Your task to perform on an android device: Open Google Maps Image 0: 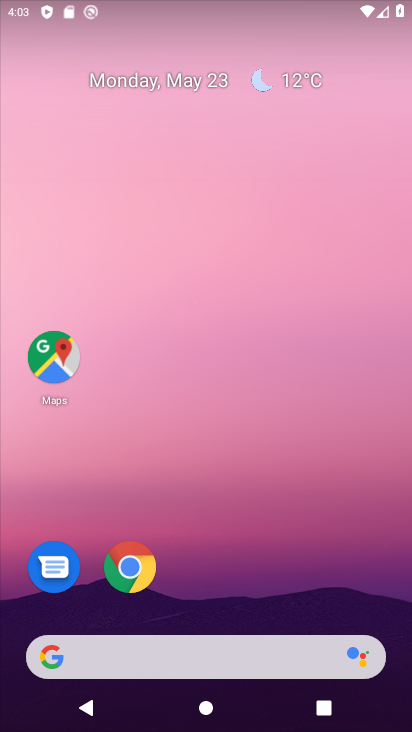
Step 0: click (37, 364)
Your task to perform on an android device: Open Google Maps Image 1: 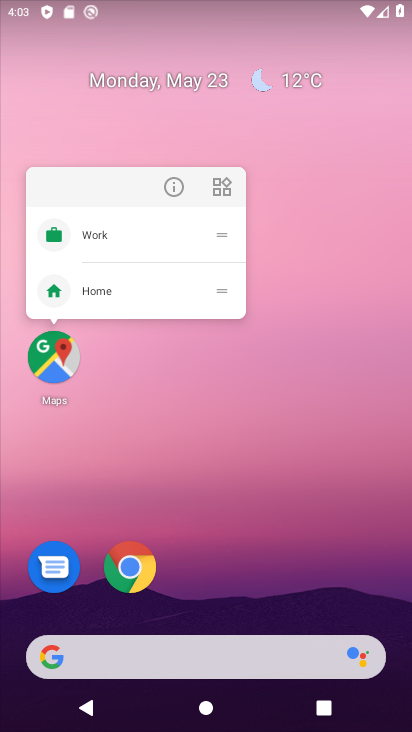
Step 1: click (172, 195)
Your task to perform on an android device: Open Google Maps Image 2: 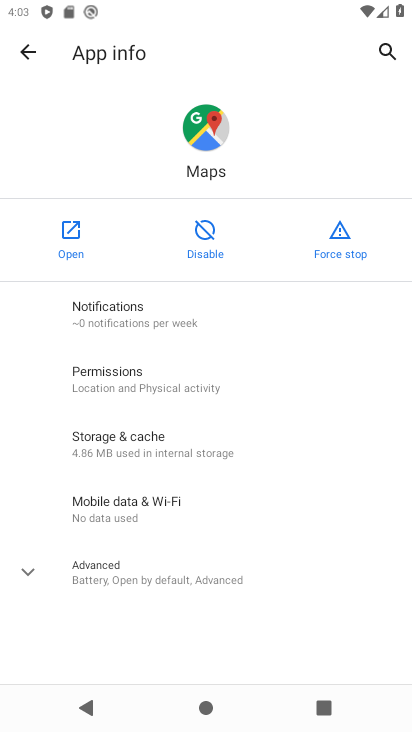
Step 2: click (71, 236)
Your task to perform on an android device: Open Google Maps Image 3: 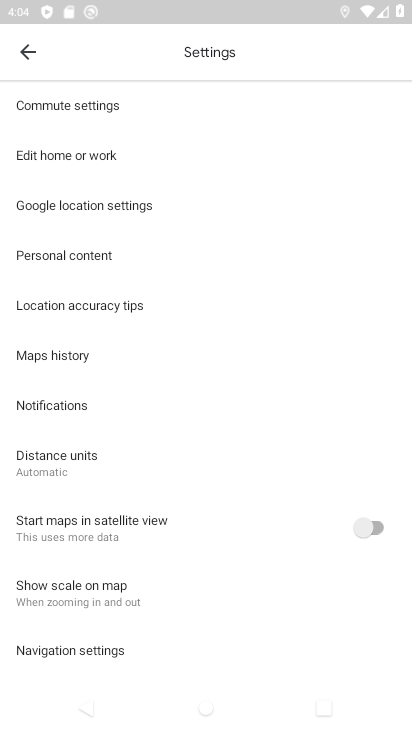
Step 3: click (32, 46)
Your task to perform on an android device: Open Google Maps Image 4: 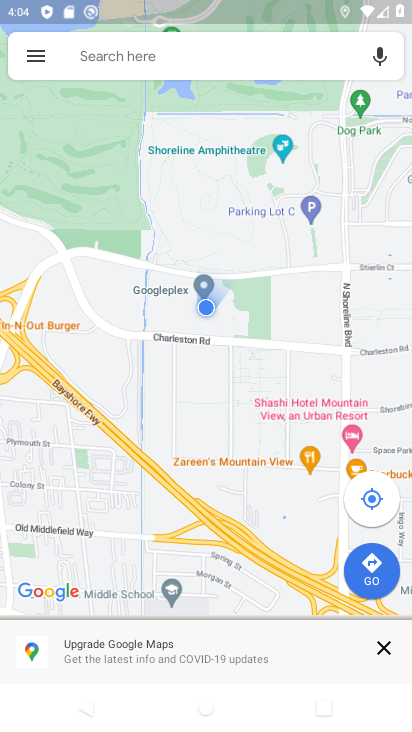
Step 4: task complete